Your task to perform on an android device: Open my contact list Image 0: 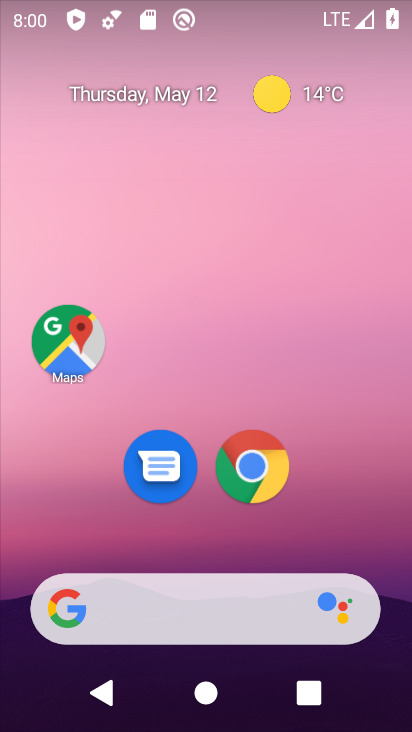
Step 0: press home button
Your task to perform on an android device: Open my contact list Image 1: 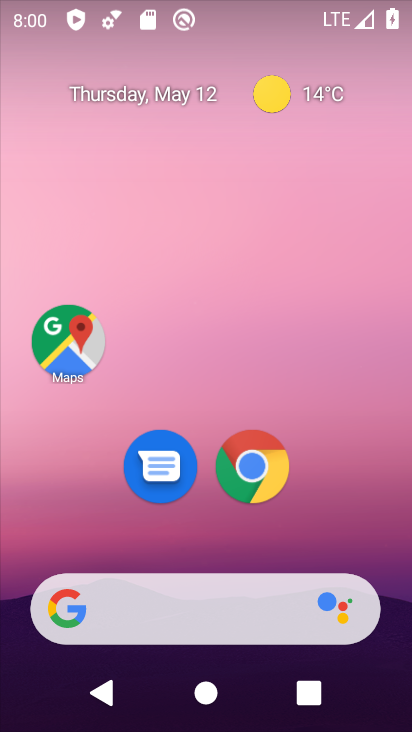
Step 1: drag from (217, 540) to (308, 8)
Your task to perform on an android device: Open my contact list Image 2: 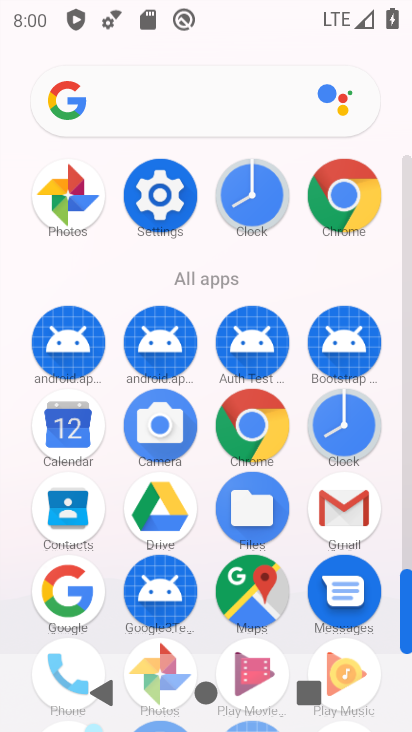
Step 2: click (66, 505)
Your task to perform on an android device: Open my contact list Image 3: 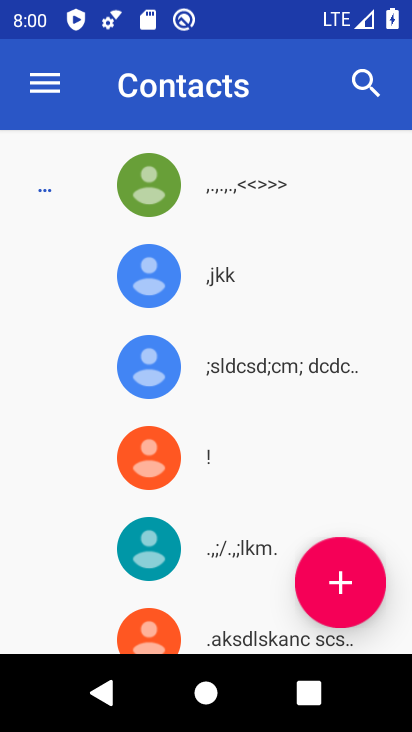
Step 3: task complete